Your task to perform on an android device: Open my contact list Image 0: 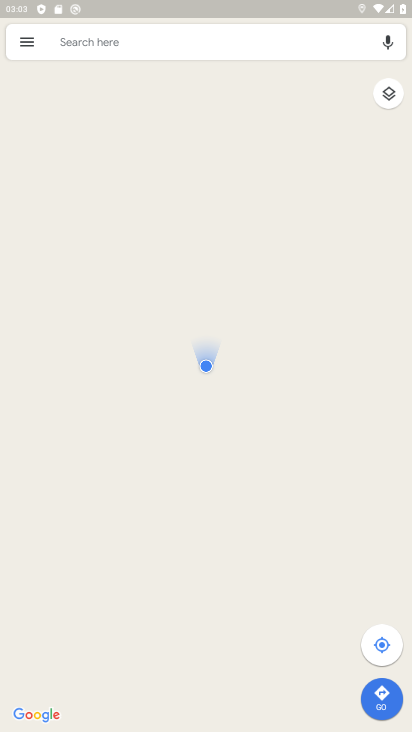
Step 0: press home button
Your task to perform on an android device: Open my contact list Image 1: 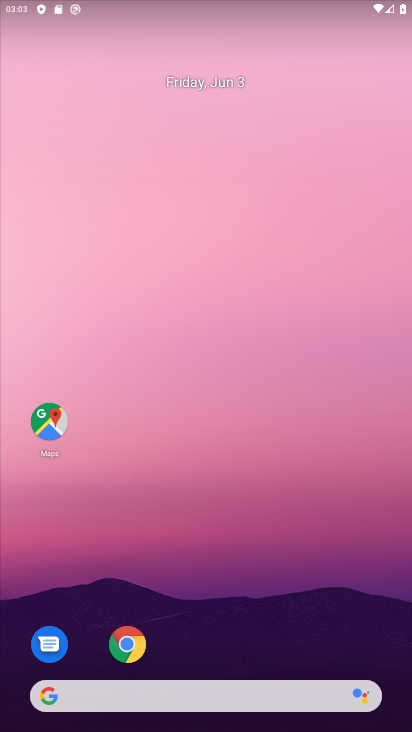
Step 1: click (389, 3)
Your task to perform on an android device: Open my contact list Image 2: 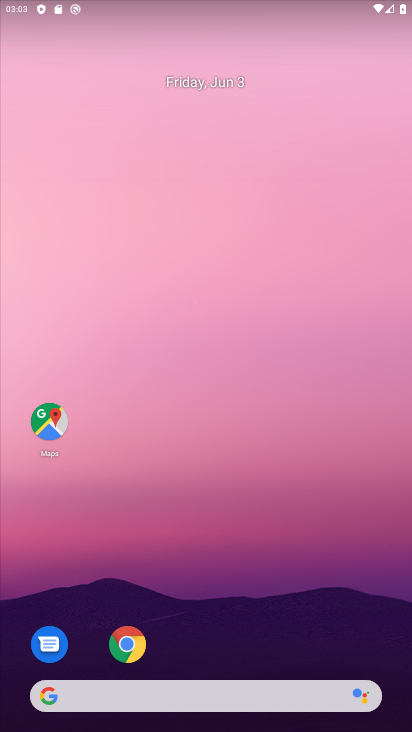
Step 2: drag from (305, 585) to (275, 10)
Your task to perform on an android device: Open my contact list Image 3: 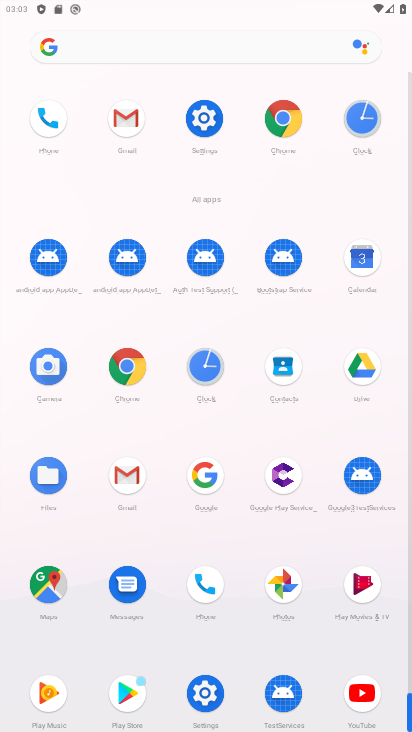
Step 3: click (296, 375)
Your task to perform on an android device: Open my contact list Image 4: 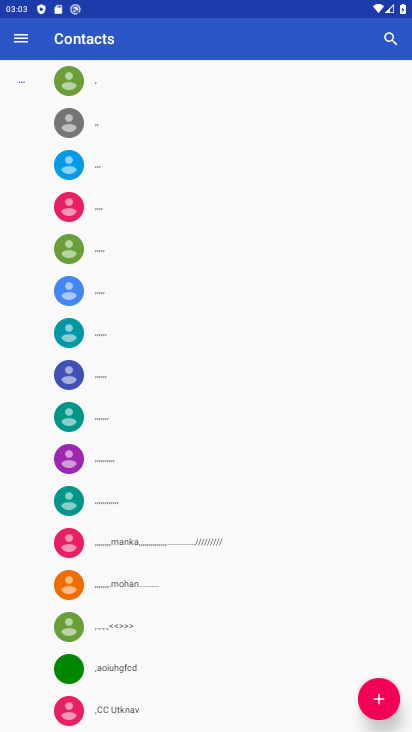
Step 4: click (366, 701)
Your task to perform on an android device: Open my contact list Image 5: 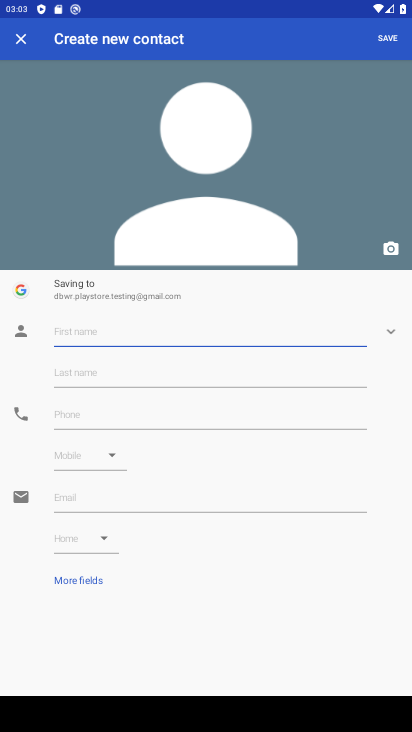
Step 5: type " vjkidghjidbnfbfjjltggdrgm"
Your task to perform on an android device: Open my contact list Image 6: 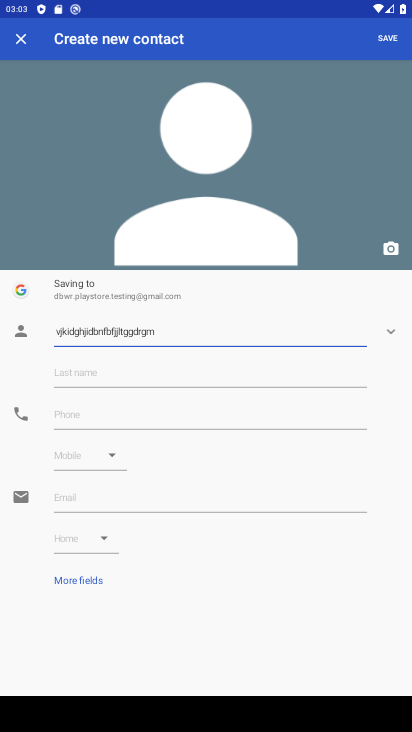
Step 6: click (186, 407)
Your task to perform on an android device: Open my contact list Image 7: 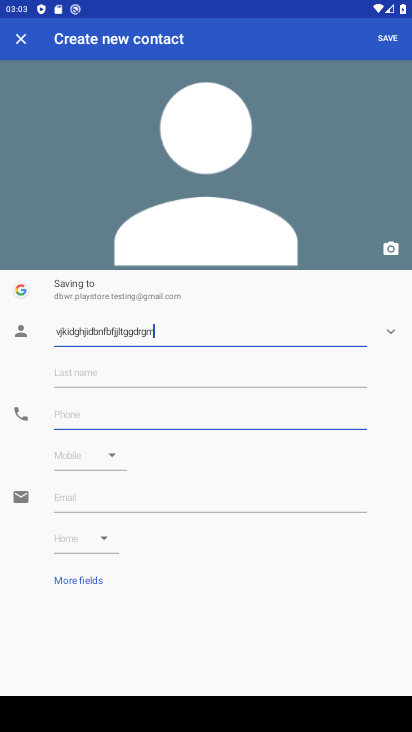
Step 7: click (186, 407)
Your task to perform on an android device: Open my contact list Image 8: 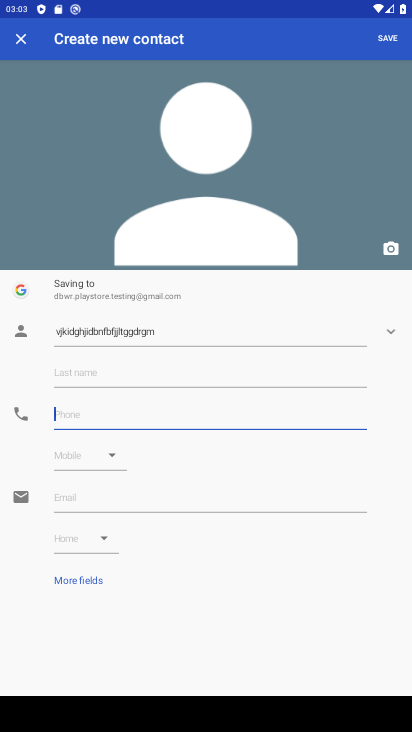
Step 8: click (186, 407)
Your task to perform on an android device: Open my contact list Image 9: 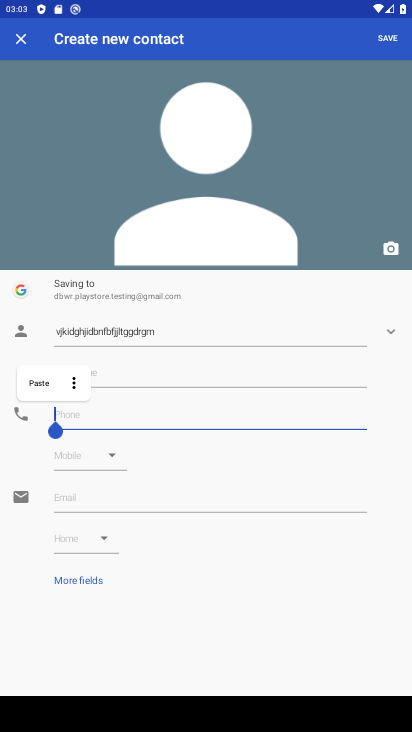
Step 9: type "6"
Your task to perform on an android device: Open my contact list Image 10: 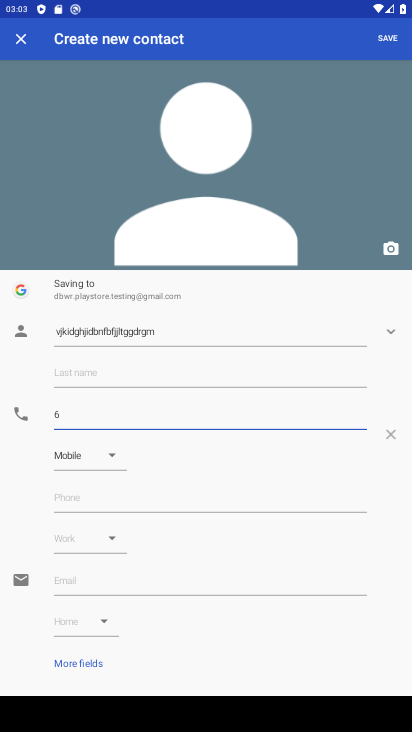
Step 10: type "5568988"
Your task to perform on an android device: Open my contact list Image 11: 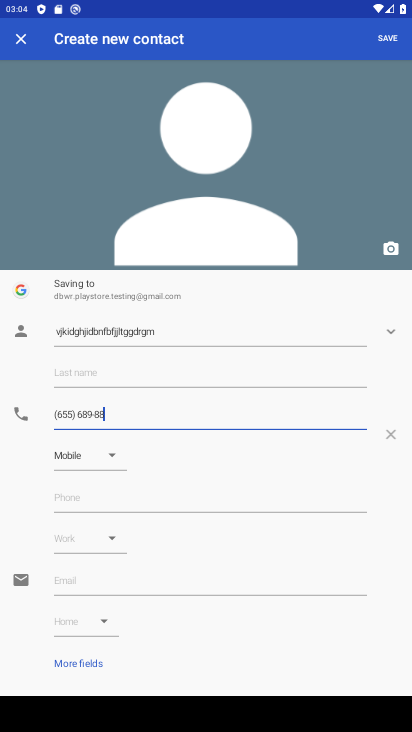
Step 11: click (385, 38)
Your task to perform on an android device: Open my contact list Image 12: 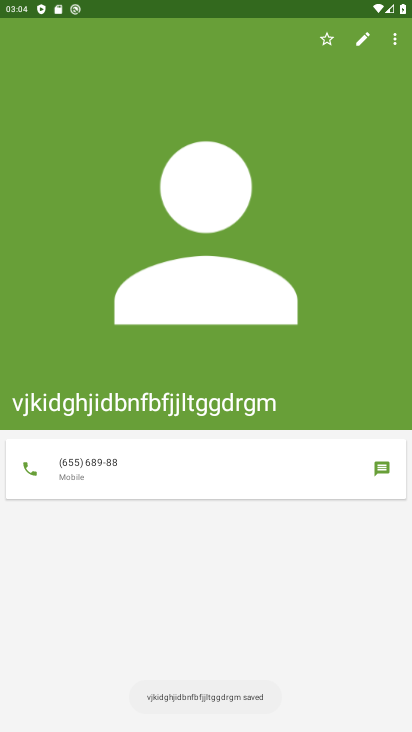
Step 12: task complete